Your task to perform on an android device: toggle location history Image 0: 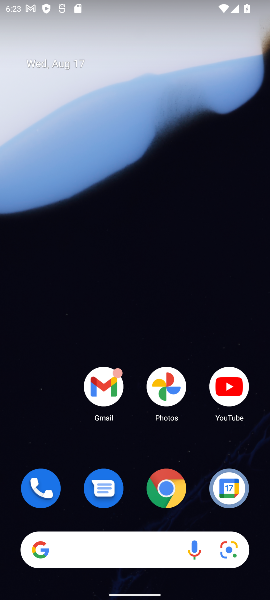
Step 0: drag from (105, 545) to (89, 66)
Your task to perform on an android device: toggle location history Image 1: 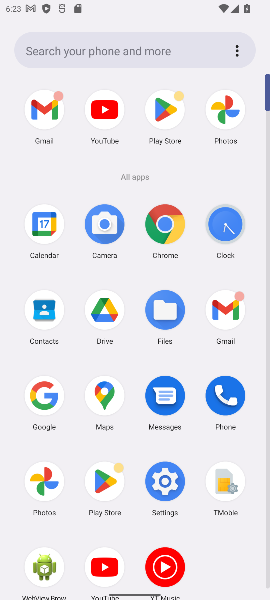
Step 1: click (158, 482)
Your task to perform on an android device: toggle location history Image 2: 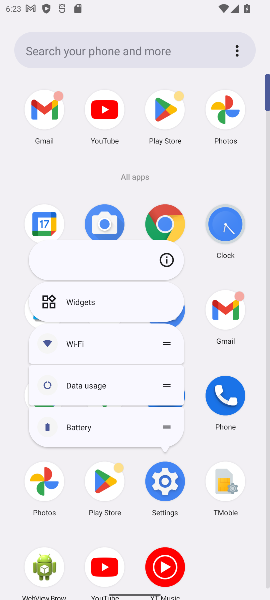
Step 2: click (158, 482)
Your task to perform on an android device: toggle location history Image 3: 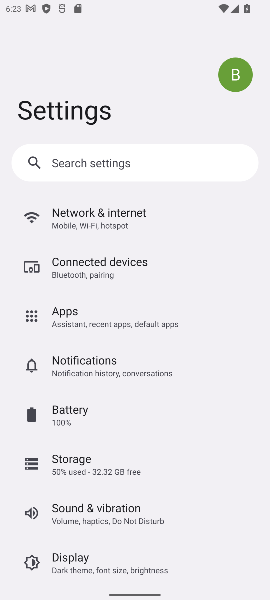
Step 3: drag from (62, 420) to (37, 186)
Your task to perform on an android device: toggle location history Image 4: 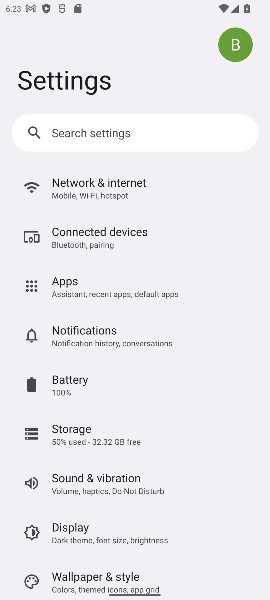
Step 4: drag from (95, 282) to (113, 138)
Your task to perform on an android device: toggle location history Image 5: 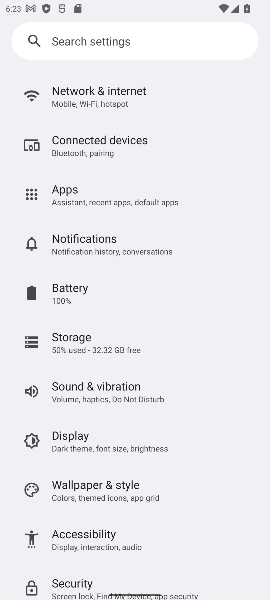
Step 5: drag from (118, 572) to (163, 207)
Your task to perform on an android device: toggle location history Image 6: 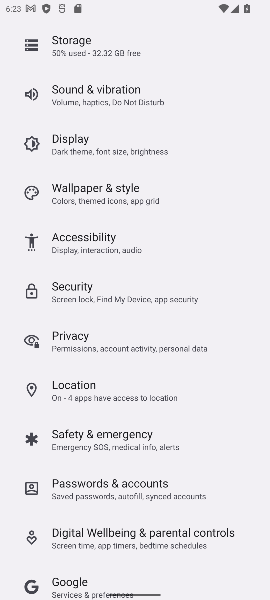
Step 6: click (86, 392)
Your task to perform on an android device: toggle location history Image 7: 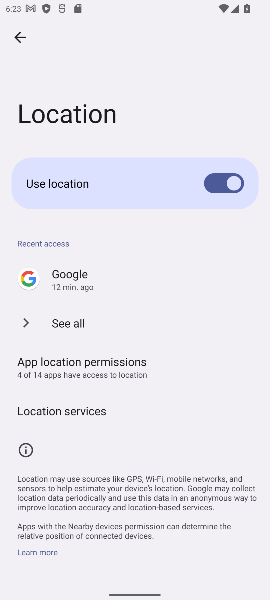
Step 7: task complete